Your task to perform on an android device: Search for the new nike shoes on Target Image 0: 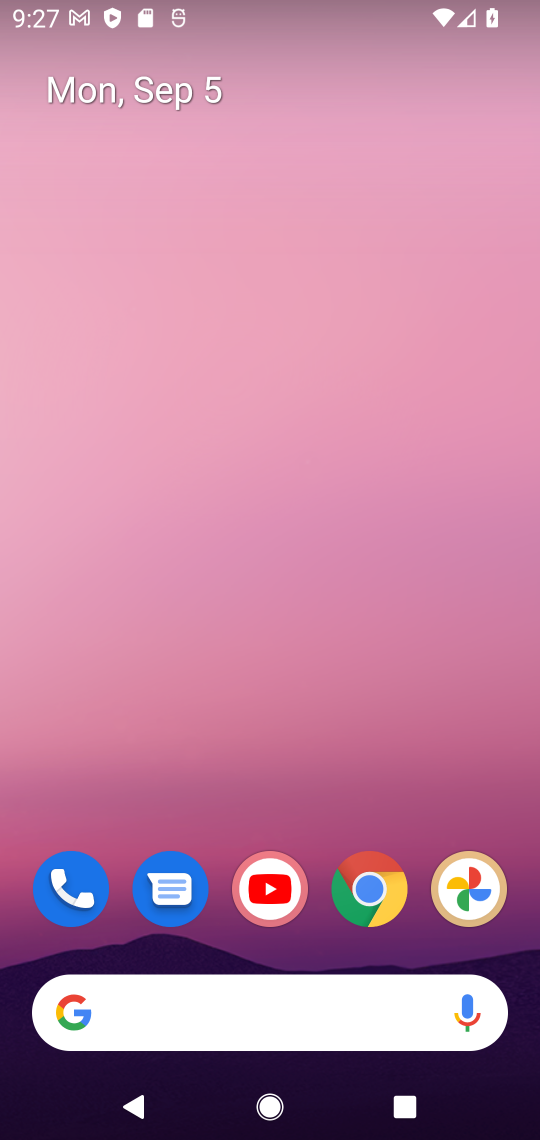
Step 0: click (239, 1022)
Your task to perform on an android device: Search for the new nike shoes on Target Image 1: 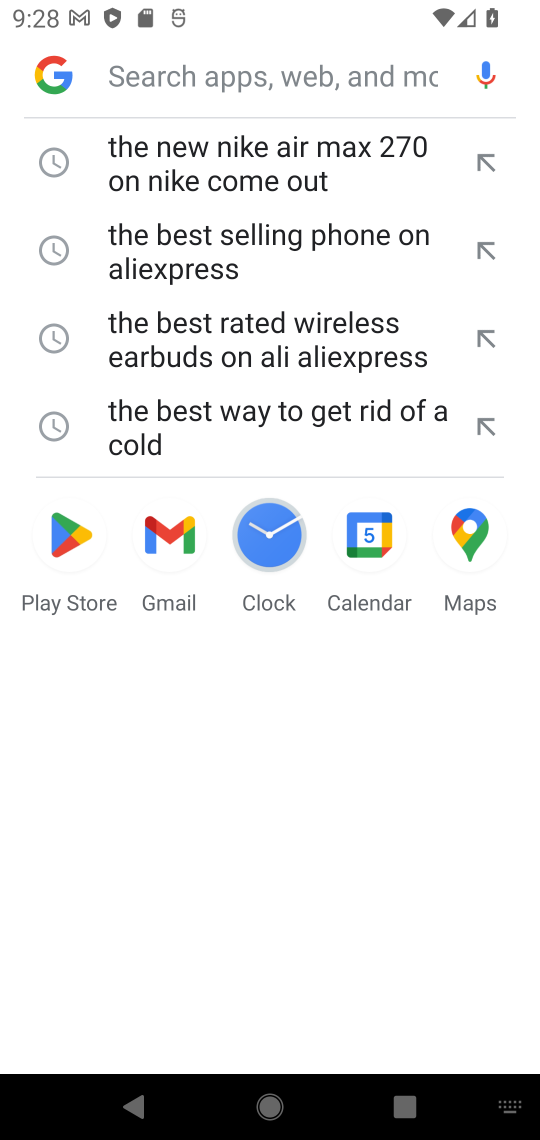
Step 1: type "the new nike shoes on Target"
Your task to perform on an android device: Search for the new nike shoes on Target Image 2: 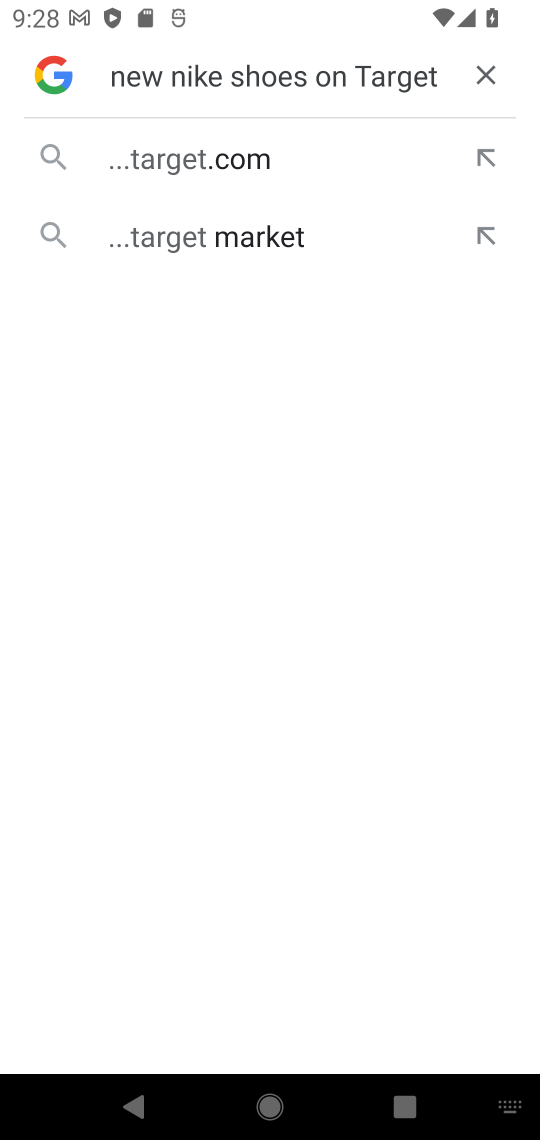
Step 2: click (218, 157)
Your task to perform on an android device: Search for the new nike shoes on Target Image 3: 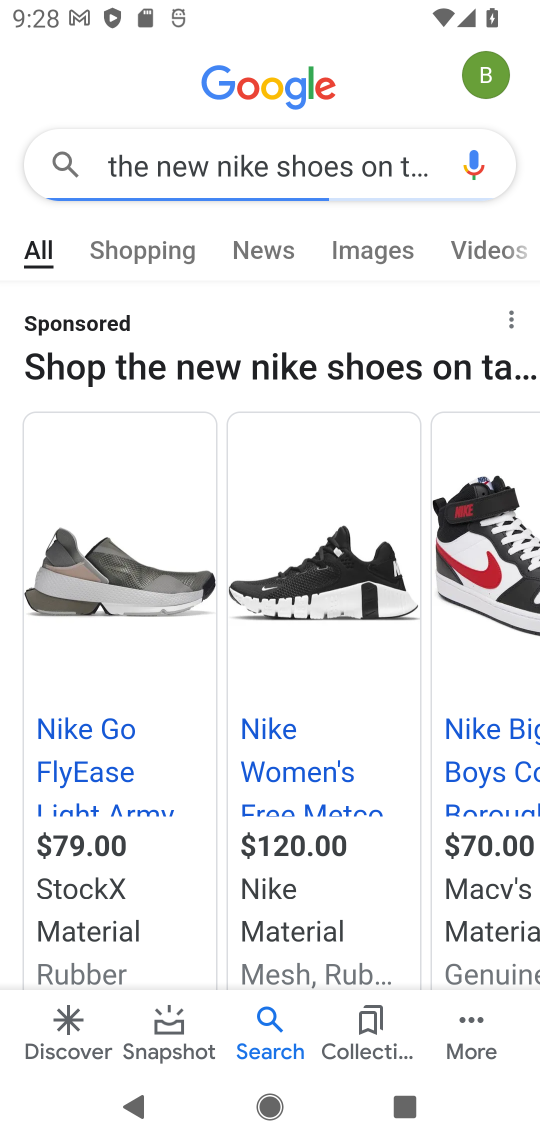
Step 3: click (218, 157)
Your task to perform on an android device: Search for the new nike shoes on Target Image 4: 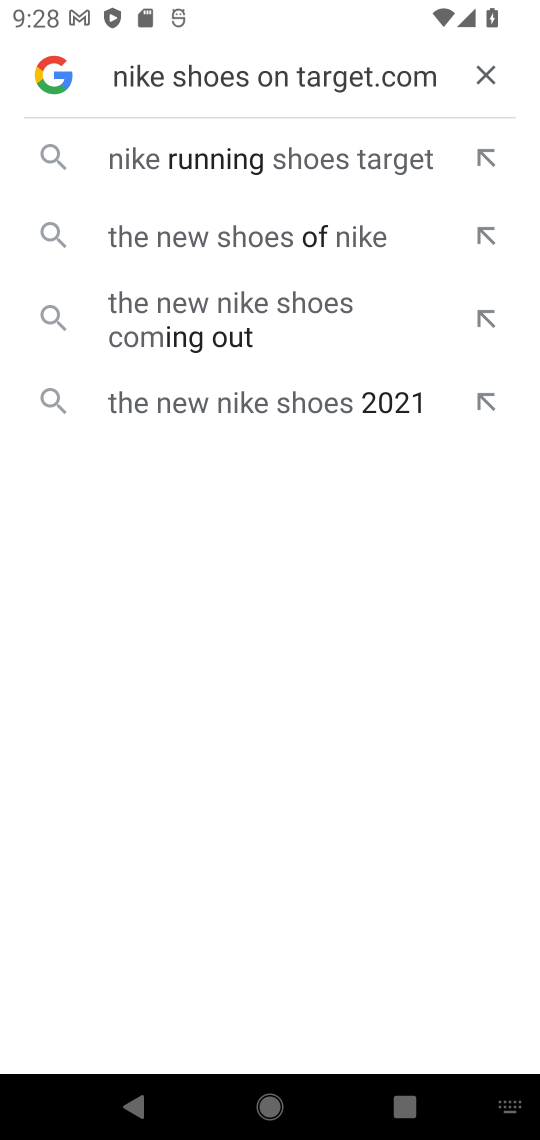
Step 4: click (287, 161)
Your task to perform on an android device: Search for the new nike shoes on Target Image 5: 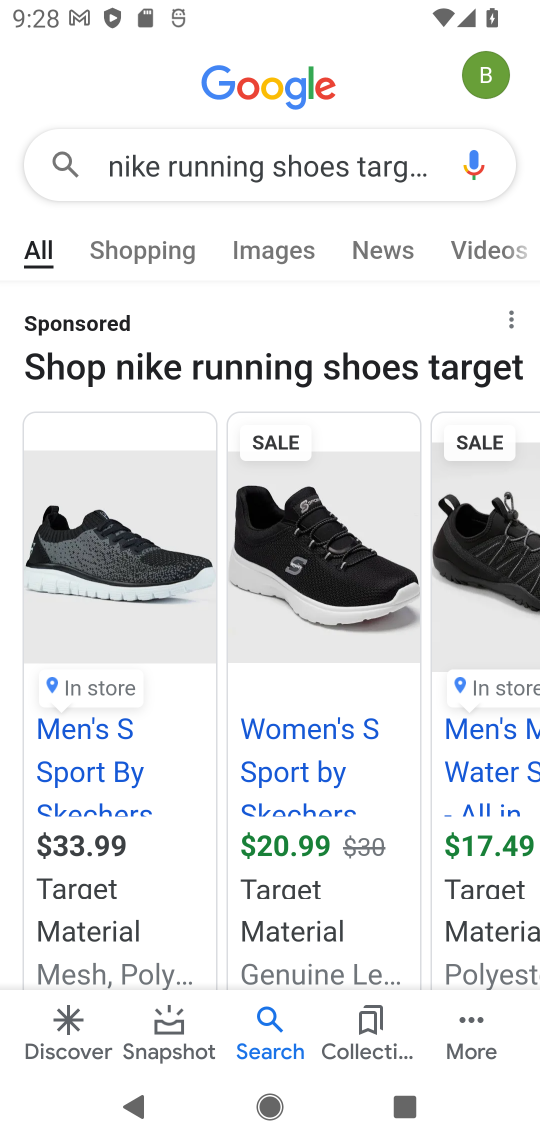
Step 5: task complete